Your task to perform on an android device: see creations saved in the google photos Image 0: 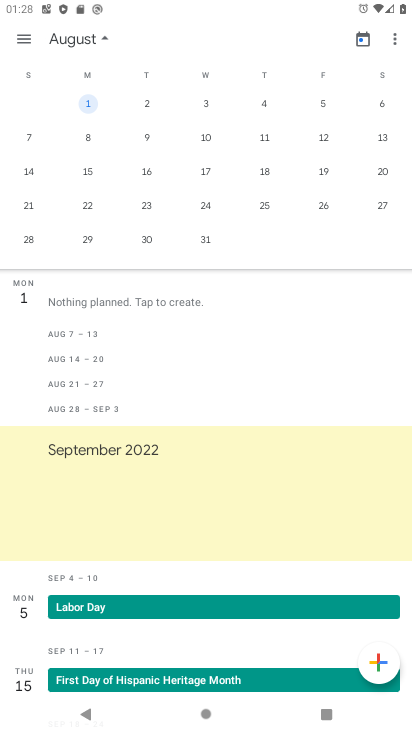
Step 0: press home button
Your task to perform on an android device: see creations saved in the google photos Image 1: 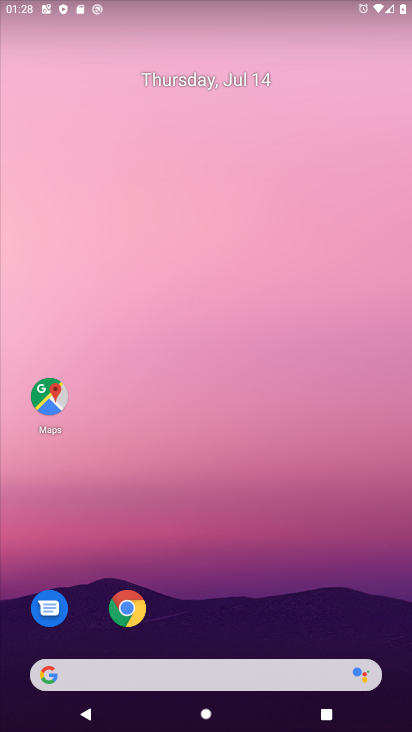
Step 1: drag from (289, 614) to (267, 126)
Your task to perform on an android device: see creations saved in the google photos Image 2: 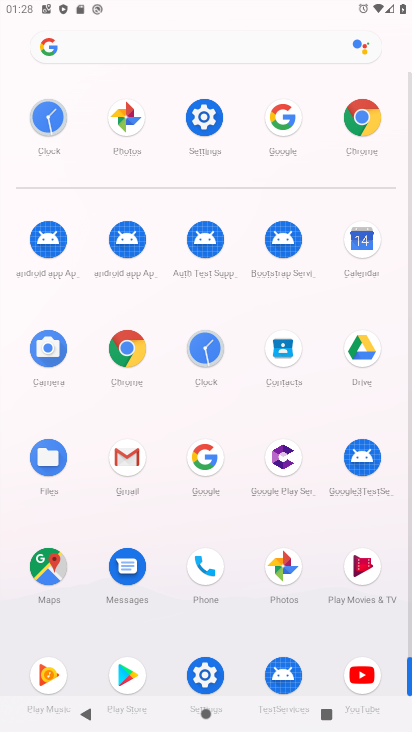
Step 2: click (273, 573)
Your task to perform on an android device: see creations saved in the google photos Image 3: 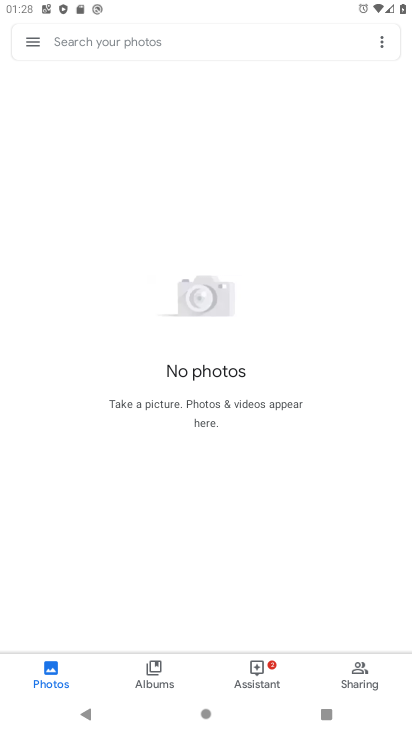
Step 3: click (216, 52)
Your task to perform on an android device: see creations saved in the google photos Image 4: 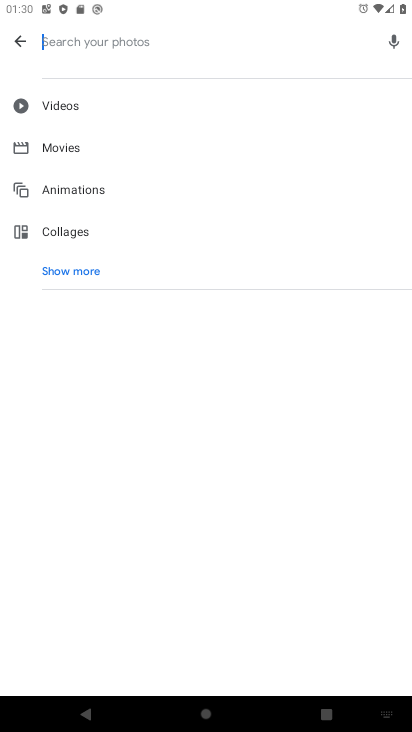
Step 4: click (27, 44)
Your task to perform on an android device: see creations saved in the google photos Image 5: 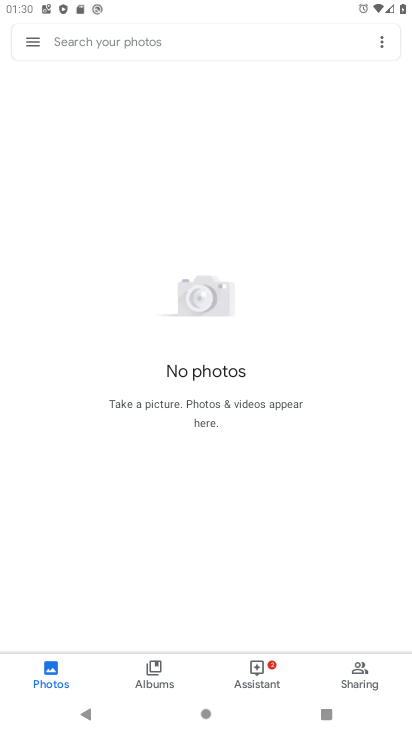
Step 5: click (288, 47)
Your task to perform on an android device: see creations saved in the google photos Image 6: 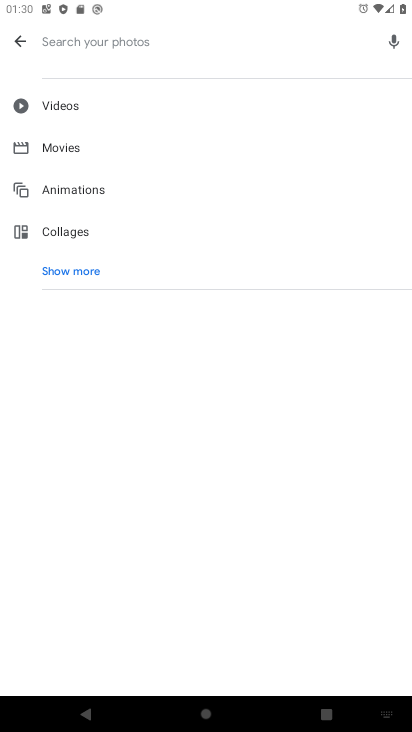
Step 6: click (74, 277)
Your task to perform on an android device: see creations saved in the google photos Image 7: 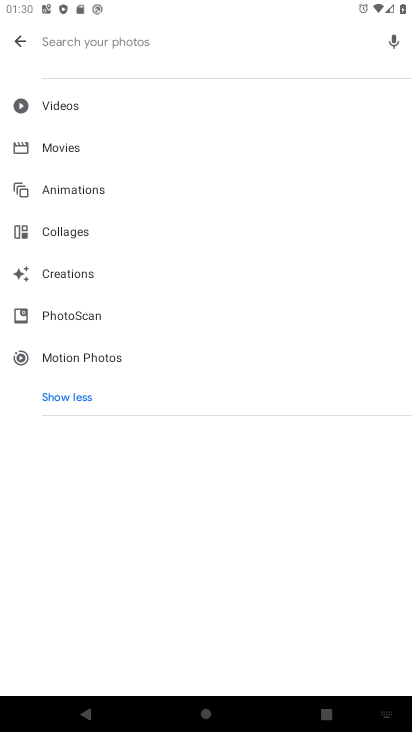
Step 7: click (74, 278)
Your task to perform on an android device: see creations saved in the google photos Image 8: 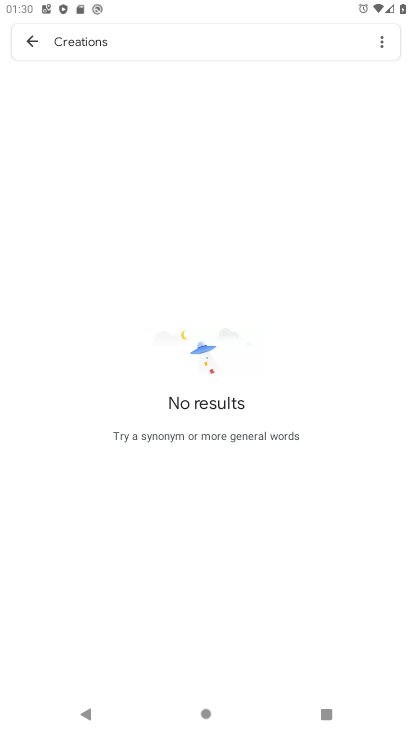
Step 8: task complete